Your task to perform on an android device: check google app version Image 0: 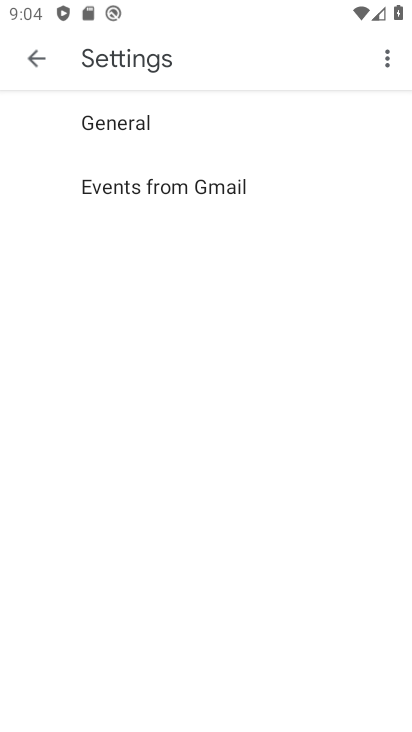
Step 0: press home button
Your task to perform on an android device: check google app version Image 1: 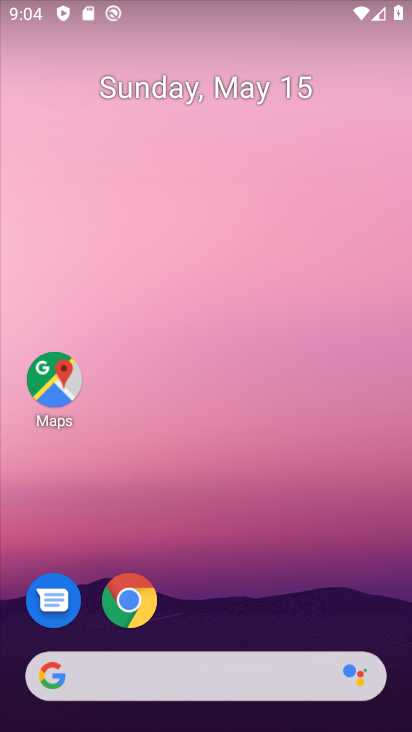
Step 1: drag from (273, 542) to (268, 16)
Your task to perform on an android device: check google app version Image 2: 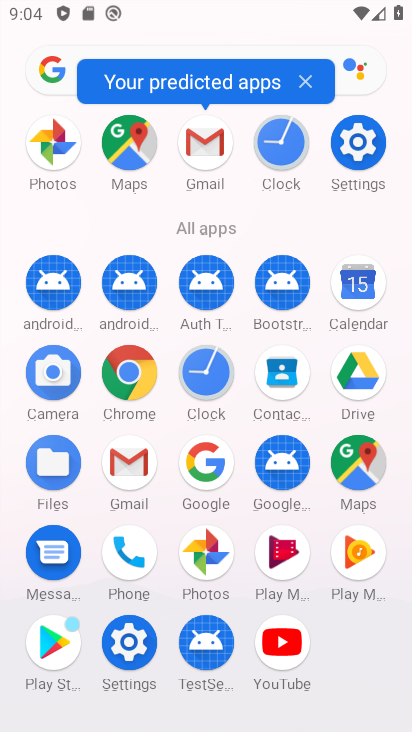
Step 2: click (198, 457)
Your task to perform on an android device: check google app version Image 3: 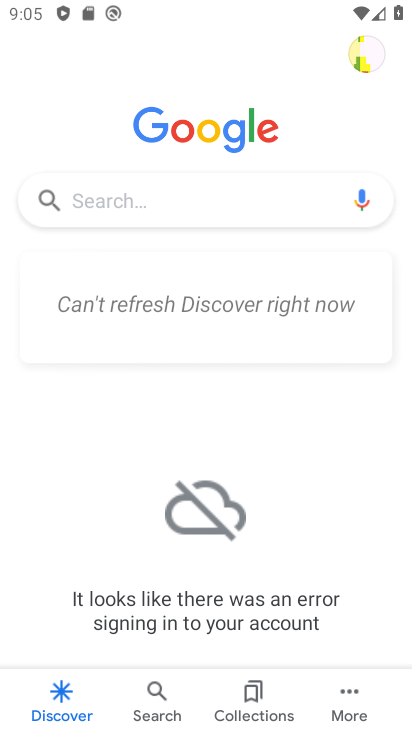
Step 3: press home button
Your task to perform on an android device: check google app version Image 4: 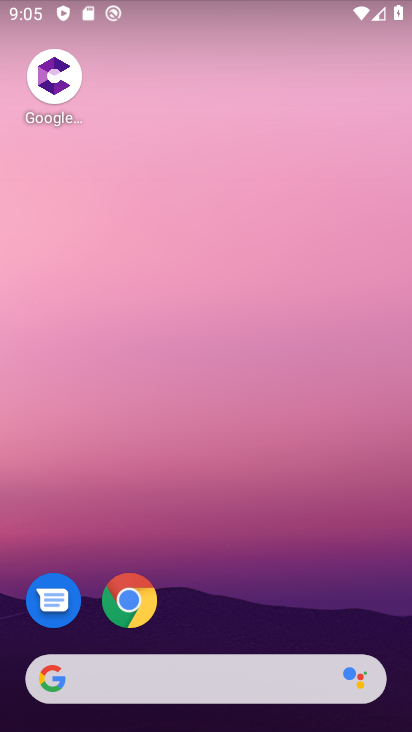
Step 4: drag from (221, 639) to (252, 17)
Your task to perform on an android device: check google app version Image 5: 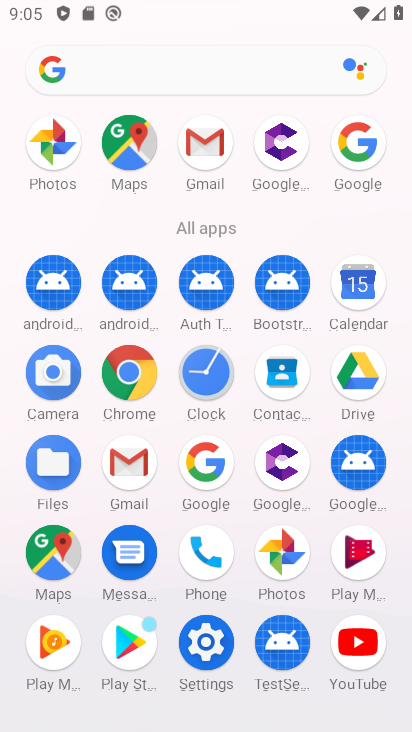
Step 5: click (357, 154)
Your task to perform on an android device: check google app version Image 6: 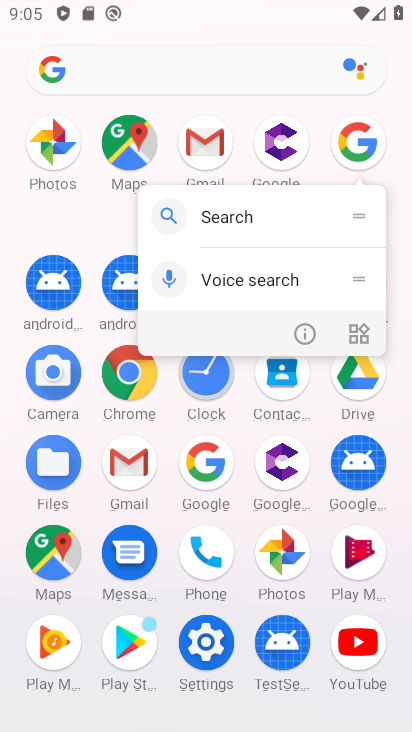
Step 6: click (317, 346)
Your task to perform on an android device: check google app version Image 7: 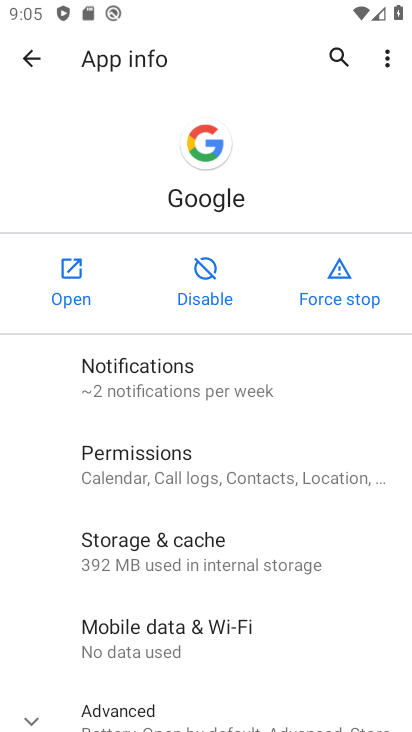
Step 7: drag from (204, 638) to (228, 181)
Your task to perform on an android device: check google app version Image 8: 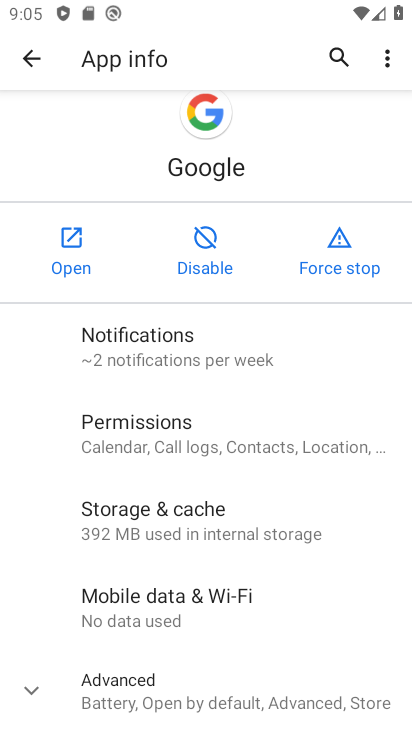
Step 8: click (223, 705)
Your task to perform on an android device: check google app version Image 9: 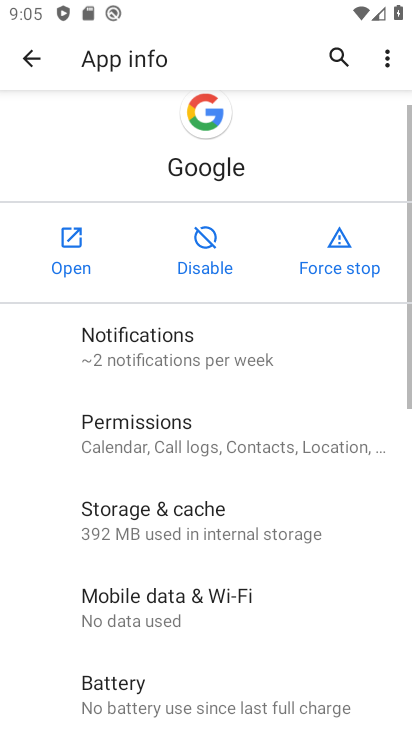
Step 9: task complete